Your task to perform on an android device: Open notification settings Image 0: 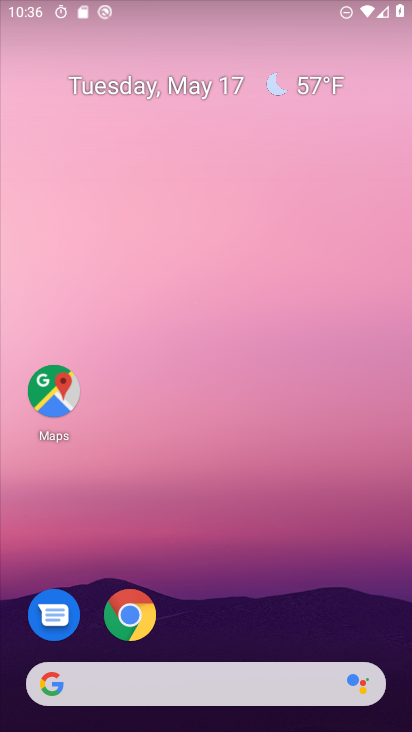
Step 0: drag from (312, 559) to (228, 49)
Your task to perform on an android device: Open notification settings Image 1: 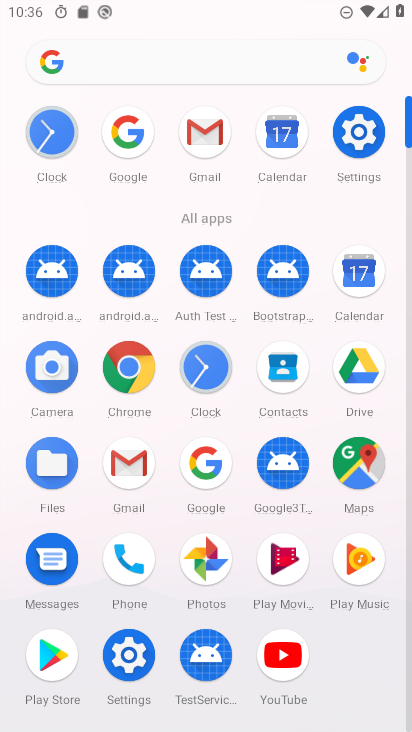
Step 1: click (360, 115)
Your task to perform on an android device: Open notification settings Image 2: 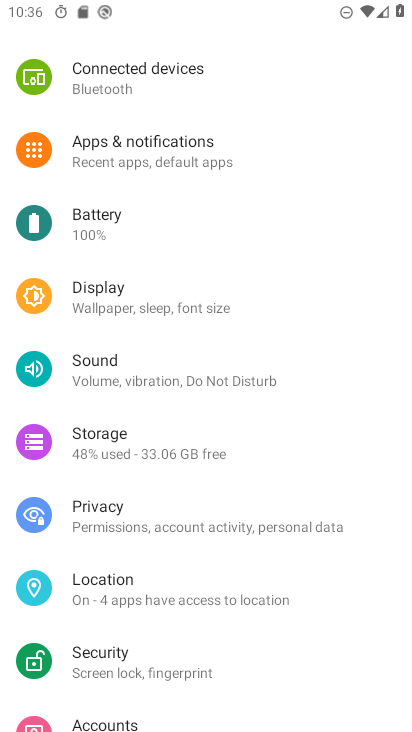
Step 2: drag from (231, 140) to (175, 647)
Your task to perform on an android device: Open notification settings Image 3: 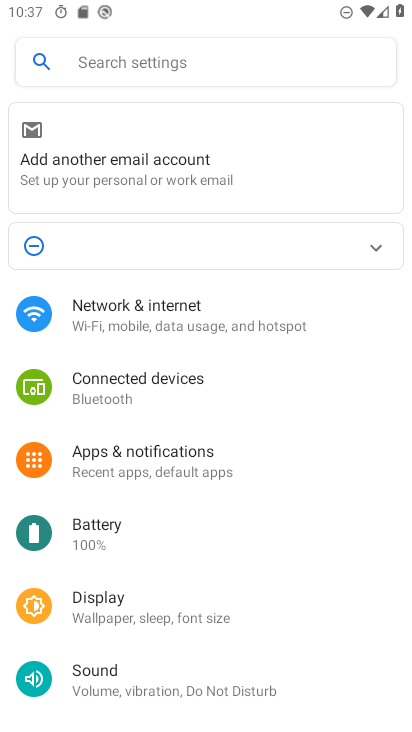
Step 3: click (151, 313)
Your task to perform on an android device: Open notification settings Image 4: 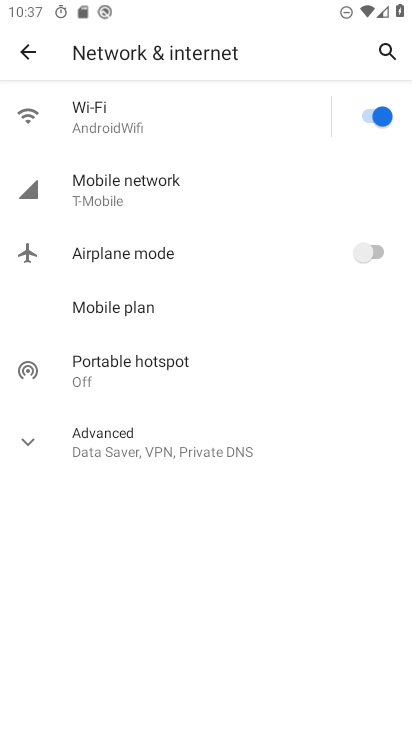
Step 4: task complete